Your task to perform on an android device: set default search engine in the chrome app Image 0: 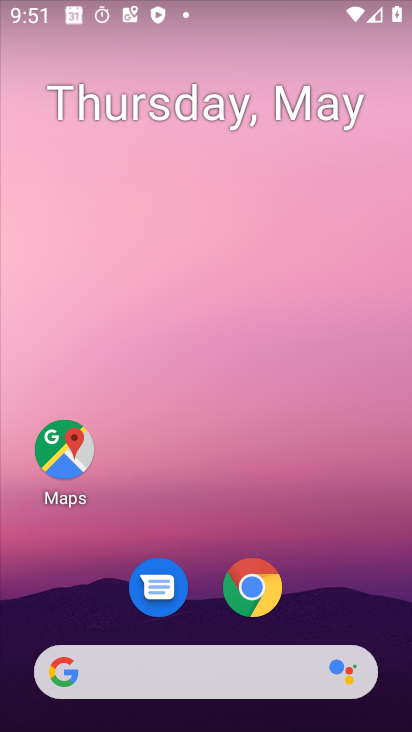
Step 0: click (252, 599)
Your task to perform on an android device: set default search engine in the chrome app Image 1: 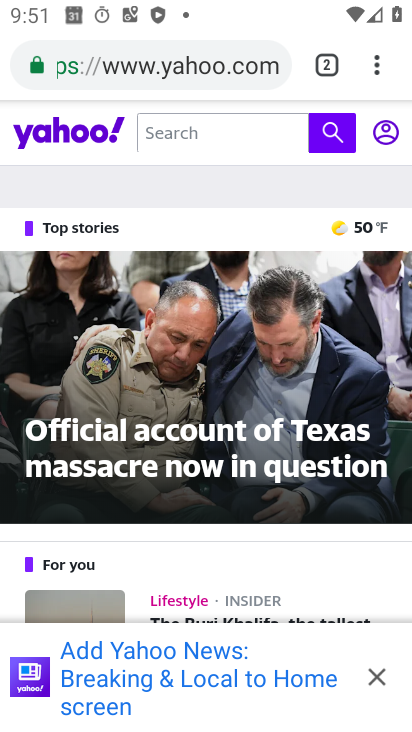
Step 1: click (376, 74)
Your task to perform on an android device: set default search engine in the chrome app Image 2: 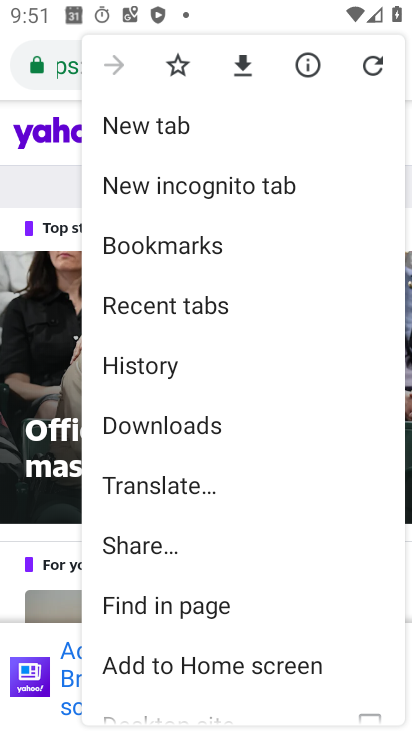
Step 2: drag from (267, 597) to (242, 184)
Your task to perform on an android device: set default search engine in the chrome app Image 3: 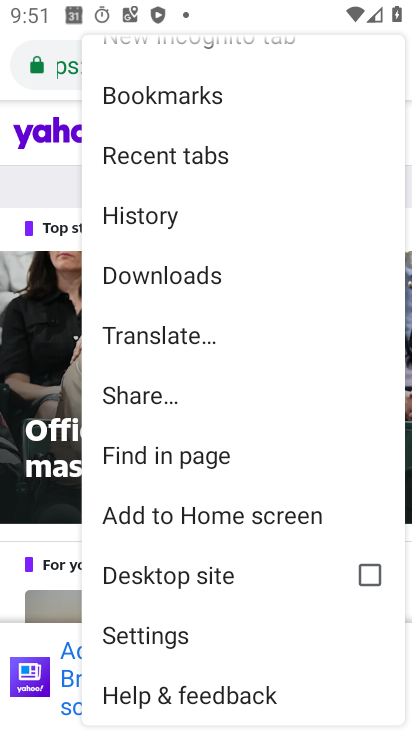
Step 3: click (120, 629)
Your task to perform on an android device: set default search engine in the chrome app Image 4: 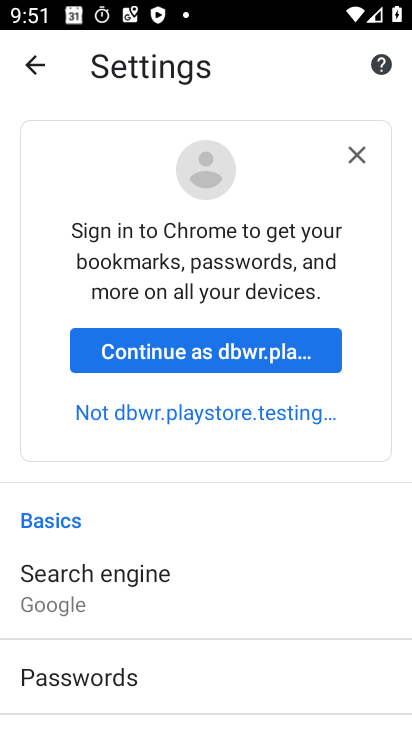
Step 4: click (35, 584)
Your task to perform on an android device: set default search engine in the chrome app Image 5: 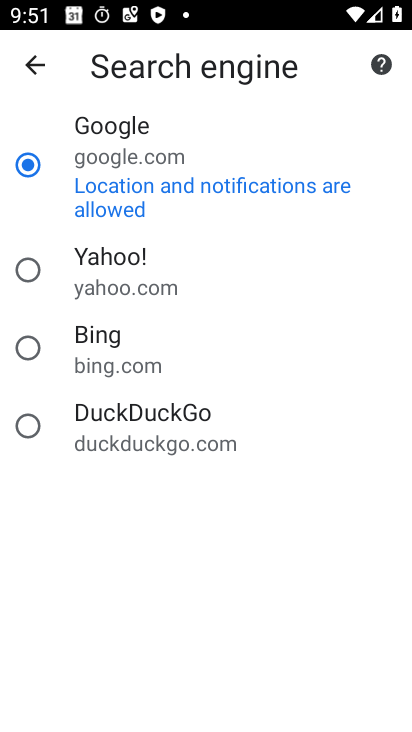
Step 5: click (22, 274)
Your task to perform on an android device: set default search engine in the chrome app Image 6: 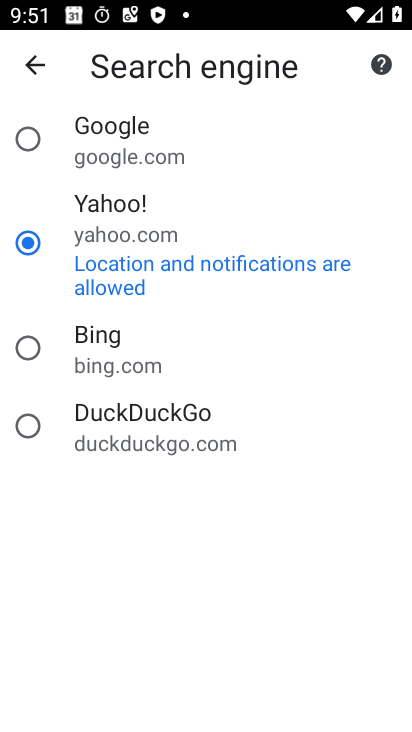
Step 6: task complete